Your task to perform on an android device: snooze an email in the gmail app Image 0: 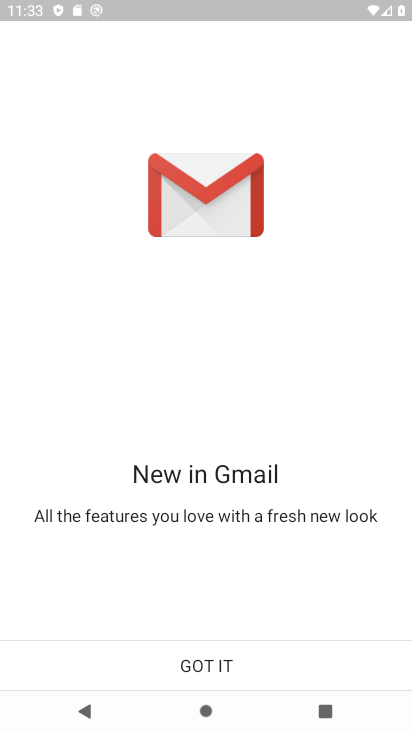
Step 0: press home button
Your task to perform on an android device: snooze an email in the gmail app Image 1: 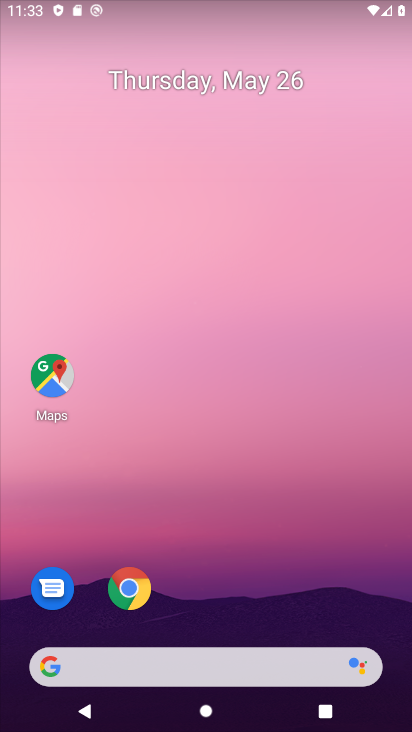
Step 1: drag from (205, 627) to (308, 19)
Your task to perform on an android device: snooze an email in the gmail app Image 2: 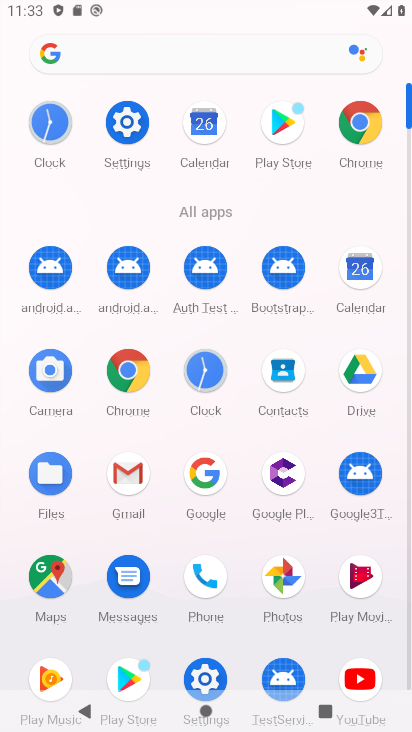
Step 2: click (119, 488)
Your task to perform on an android device: snooze an email in the gmail app Image 3: 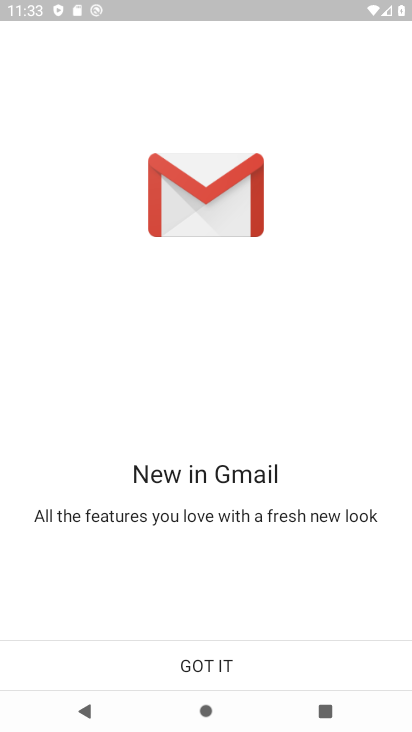
Step 3: click (255, 697)
Your task to perform on an android device: snooze an email in the gmail app Image 4: 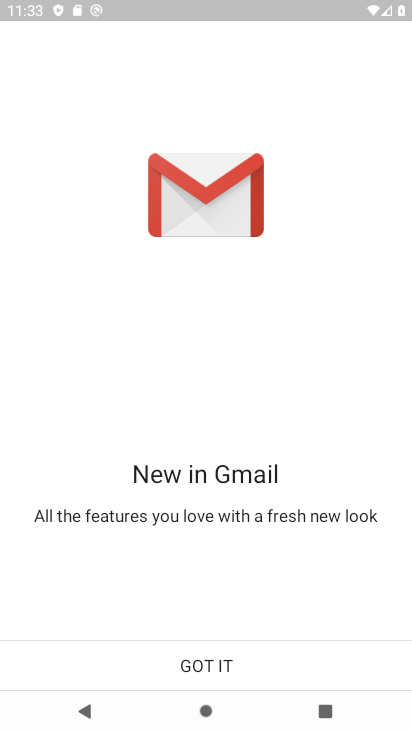
Step 4: click (257, 683)
Your task to perform on an android device: snooze an email in the gmail app Image 5: 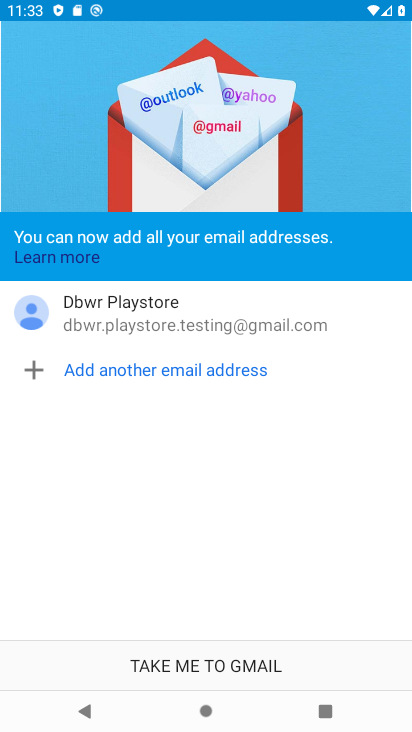
Step 5: click (174, 673)
Your task to perform on an android device: snooze an email in the gmail app Image 6: 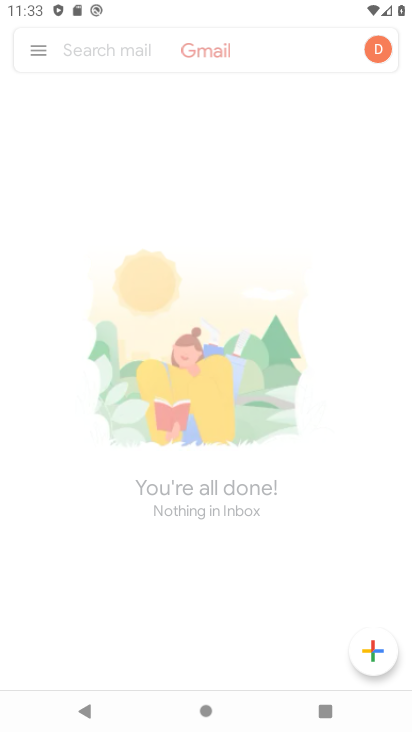
Step 6: click (27, 44)
Your task to perform on an android device: snooze an email in the gmail app Image 7: 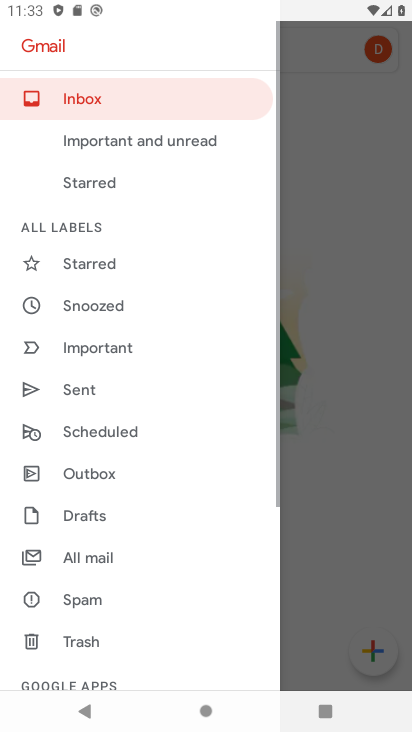
Step 7: click (124, 312)
Your task to perform on an android device: snooze an email in the gmail app Image 8: 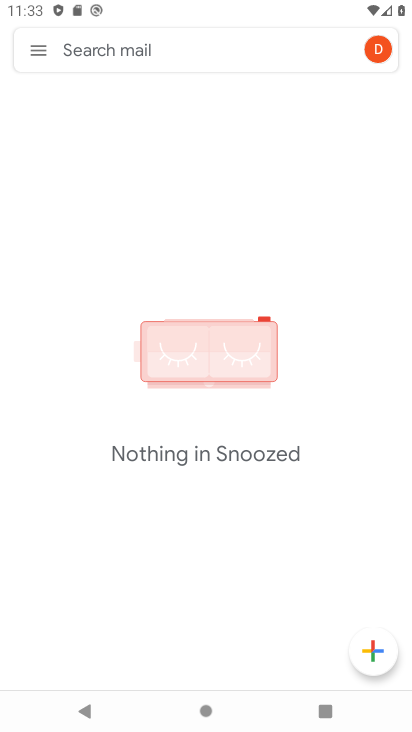
Step 8: task complete